Your task to perform on an android device: turn off priority inbox in the gmail app Image 0: 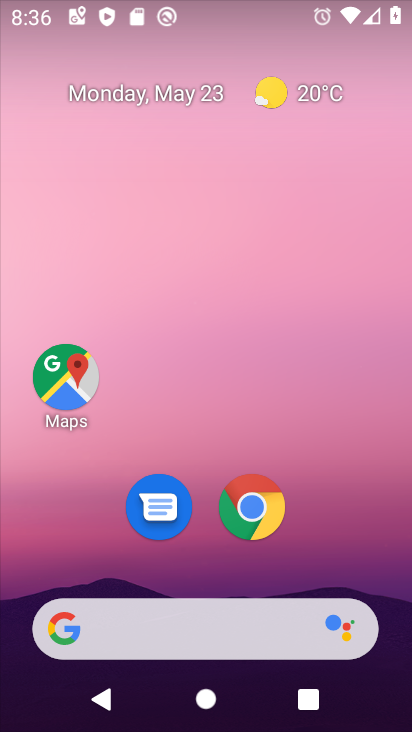
Step 0: drag from (369, 555) to (343, 26)
Your task to perform on an android device: turn off priority inbox in the gmail app Image 1: 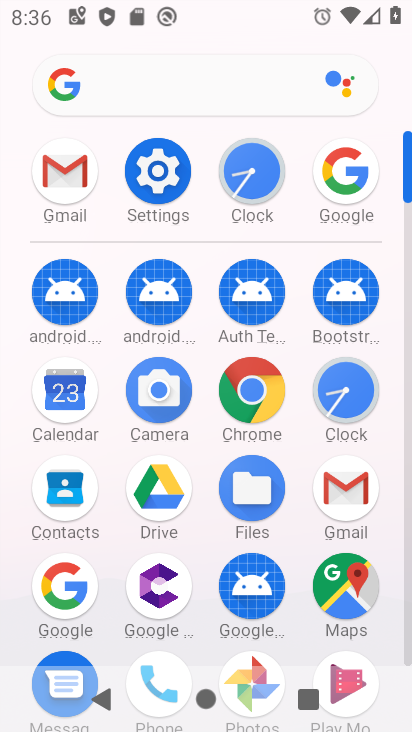
Step 1: click (66, 171)
Your task to perform on an android device: turn off priority inbox in the gmail app Image 2: 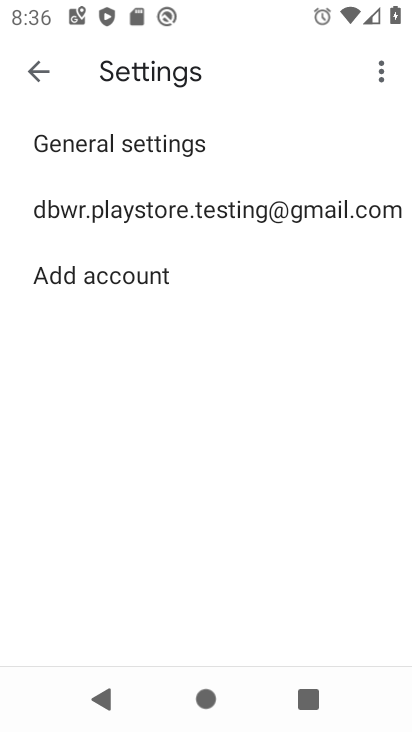
Step 2: click (79, 208)
Your task to perform on an android device: turn off priority inbox in the gmail app Image 3: 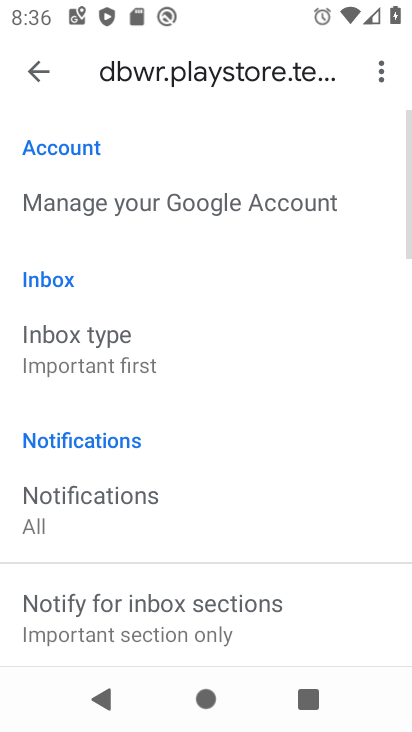
Step 3: click (82, 370)
Your task to perform on an android device: turn off priority inbox in the gmail app Image 4: 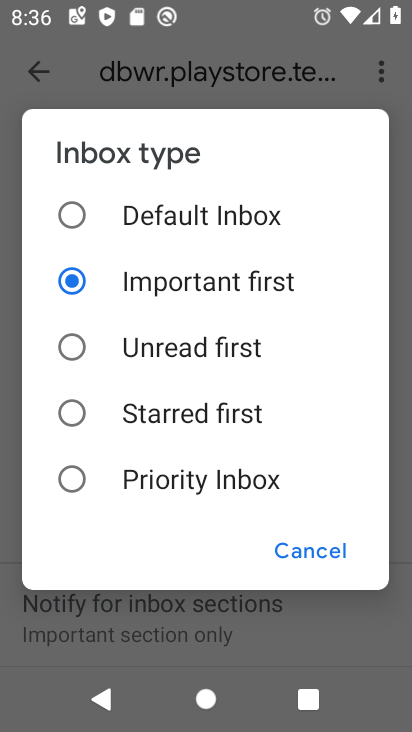
Step 4: task complete